Your task to perform on an android device: Clear the shopping cart on newegg.com. Add usb-b to the cart on newegg.com, then select checkout. Image 0: 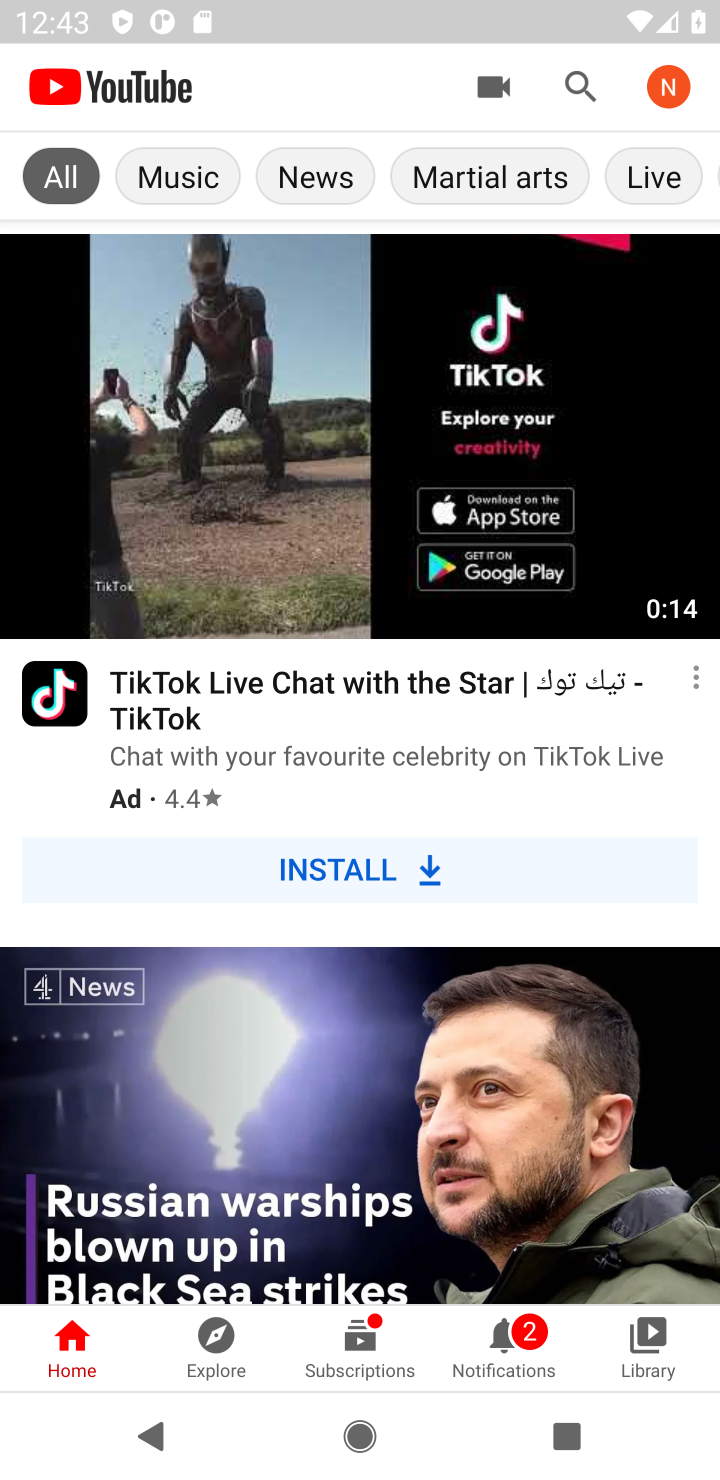
Step 0: press home button
Your task to perform on an android device: Clear the shopping cart on newegg.com. Add usb-b to the cart on newegg.com, then select checkout. Image 1: 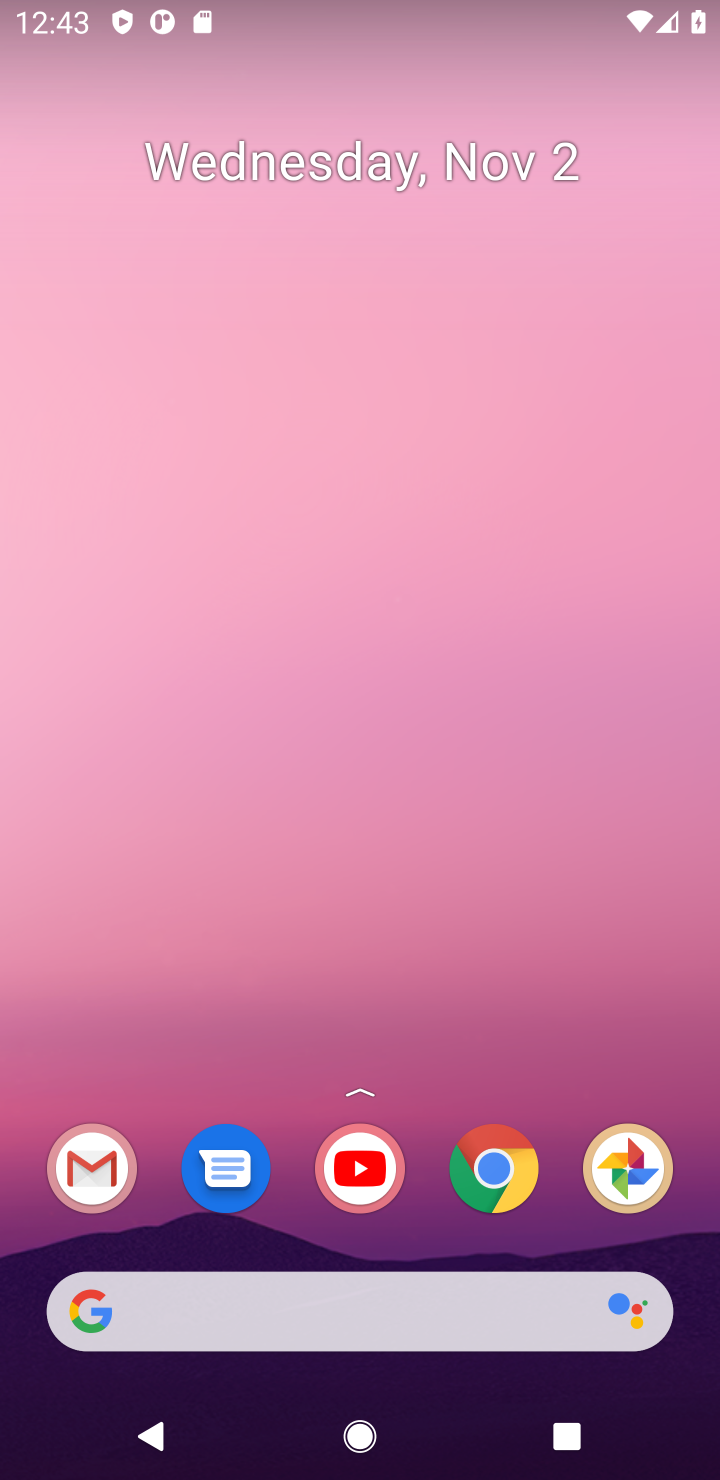
Step 1: click (408, 1311)
Your task to perform on an android device: Clear the shopping cart on newegg.com. Add usb-b to the cart on newegg.com, then select checkout. Image 2: 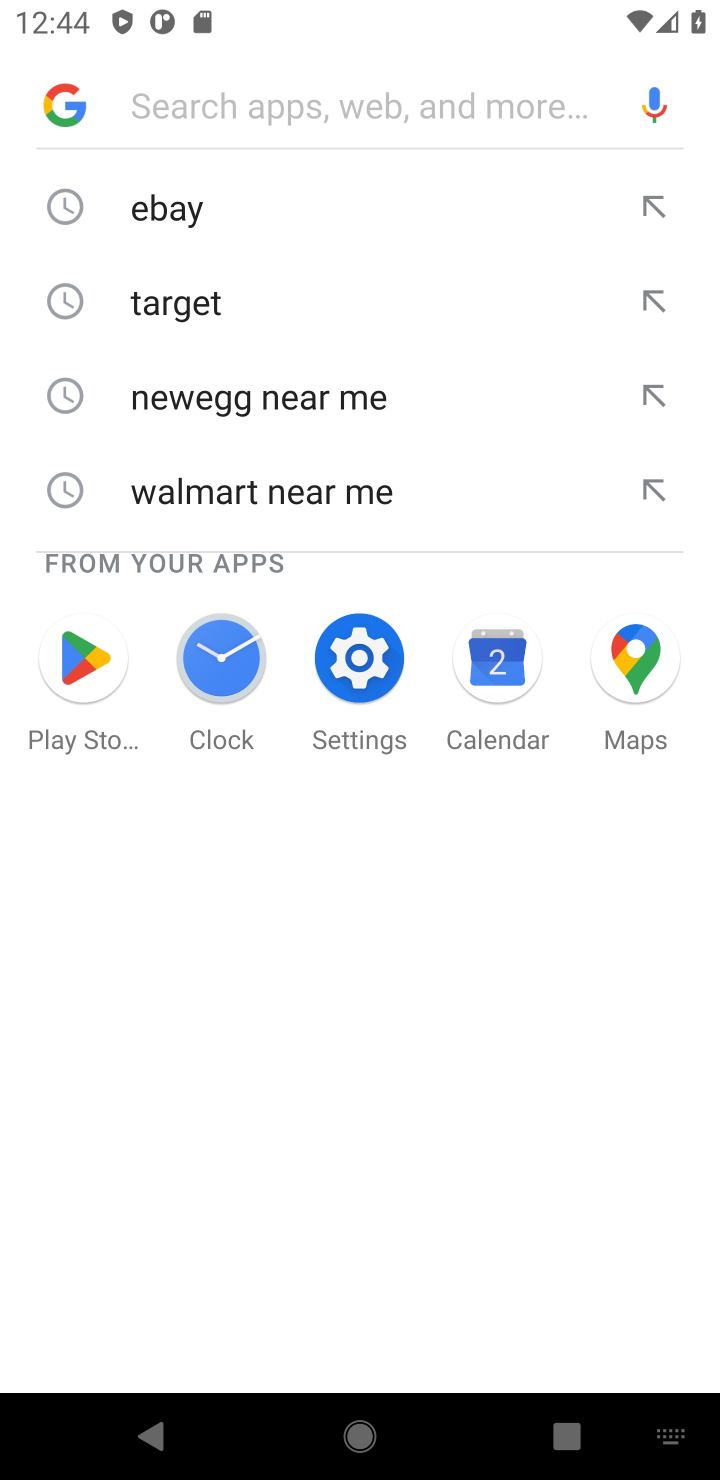
Step 2: type "newegg.com"
Your task to perform on an android device: Clear the shopping cart on newegg.com. Add usb-b to the cart on newegg.com, then select checkout. Image 3: 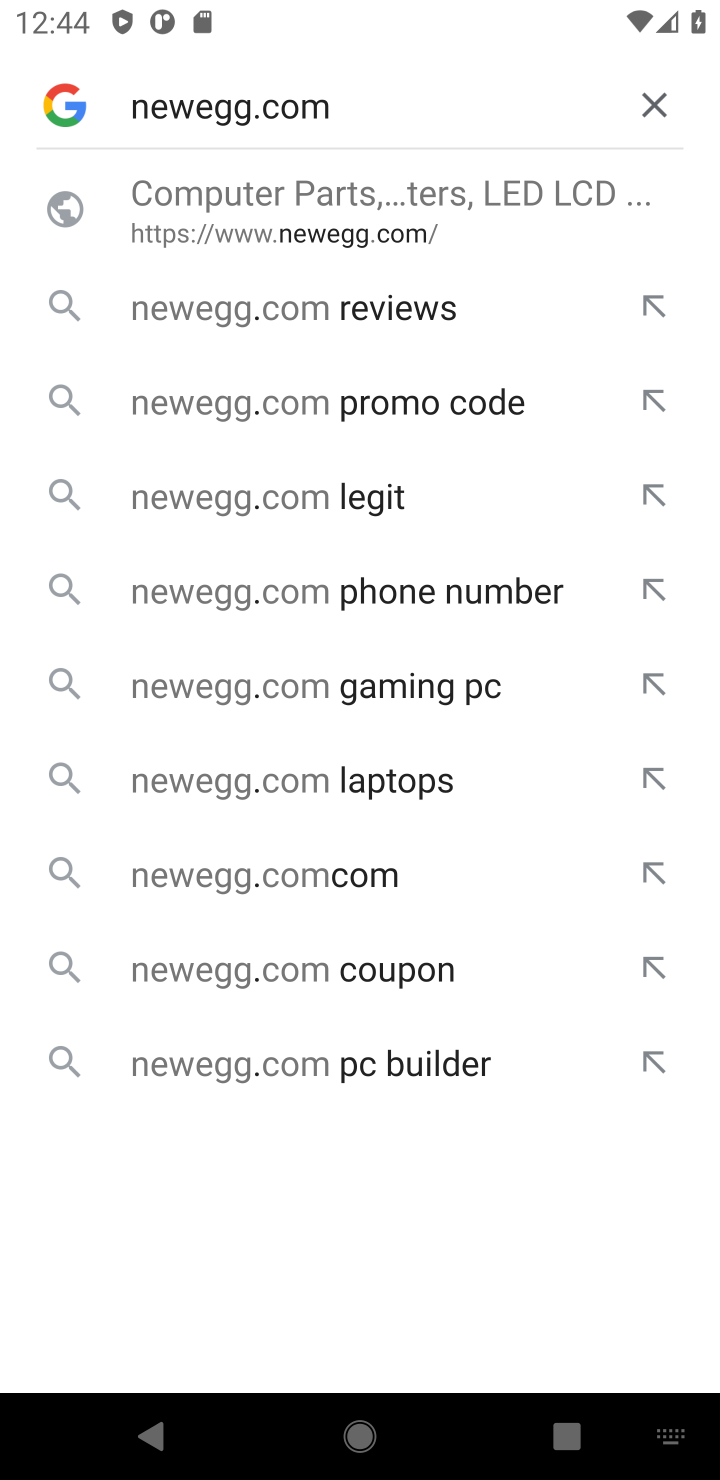
Step 3: click (292, 205)
Your task to perform on an android device: Clear the shopping cart on newegg.com. Add usb-b to the cart on newegg.com, then select checkout. Image 4: 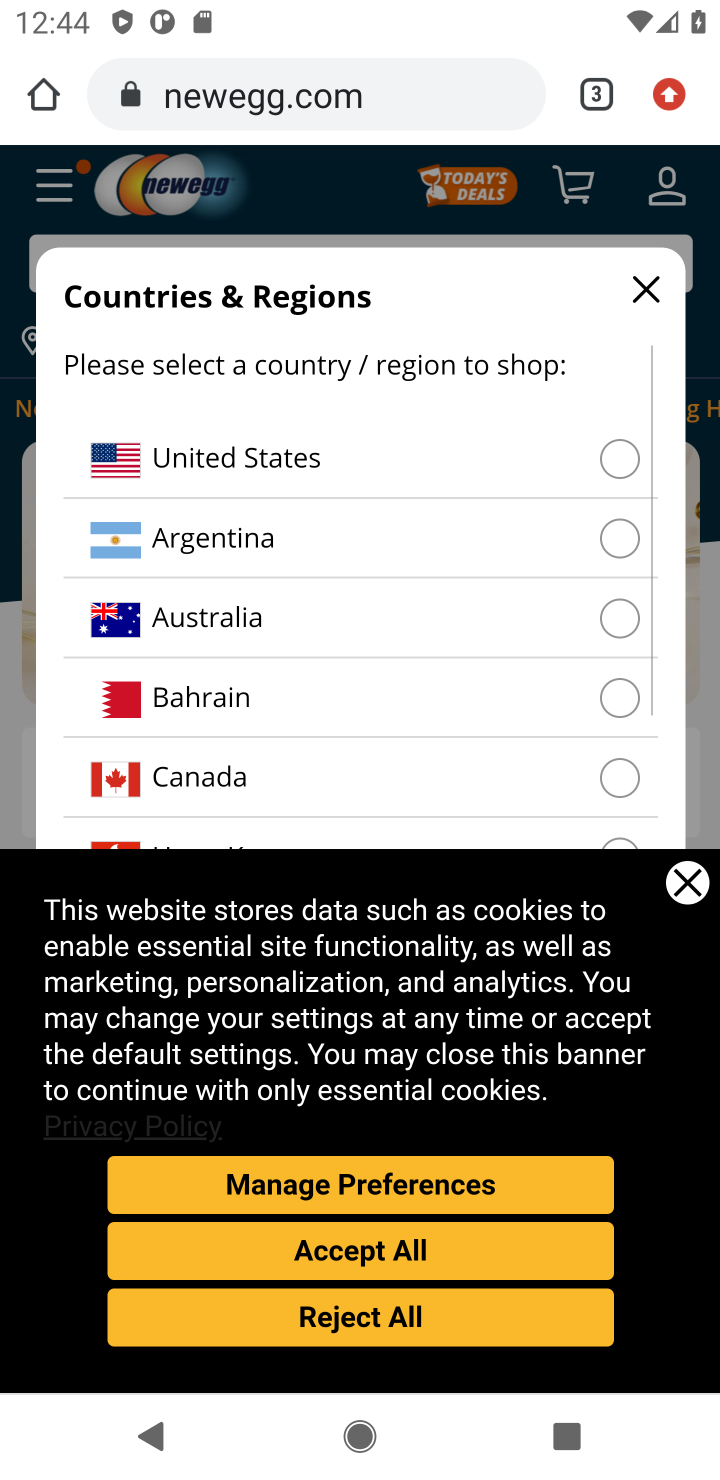
Step 4: click (682, 890)
Your task to perform on an android device: Clear the shopping cart on newegg.com. Add usb-b to the cart on newegg.com, then select checkout. Image 5: 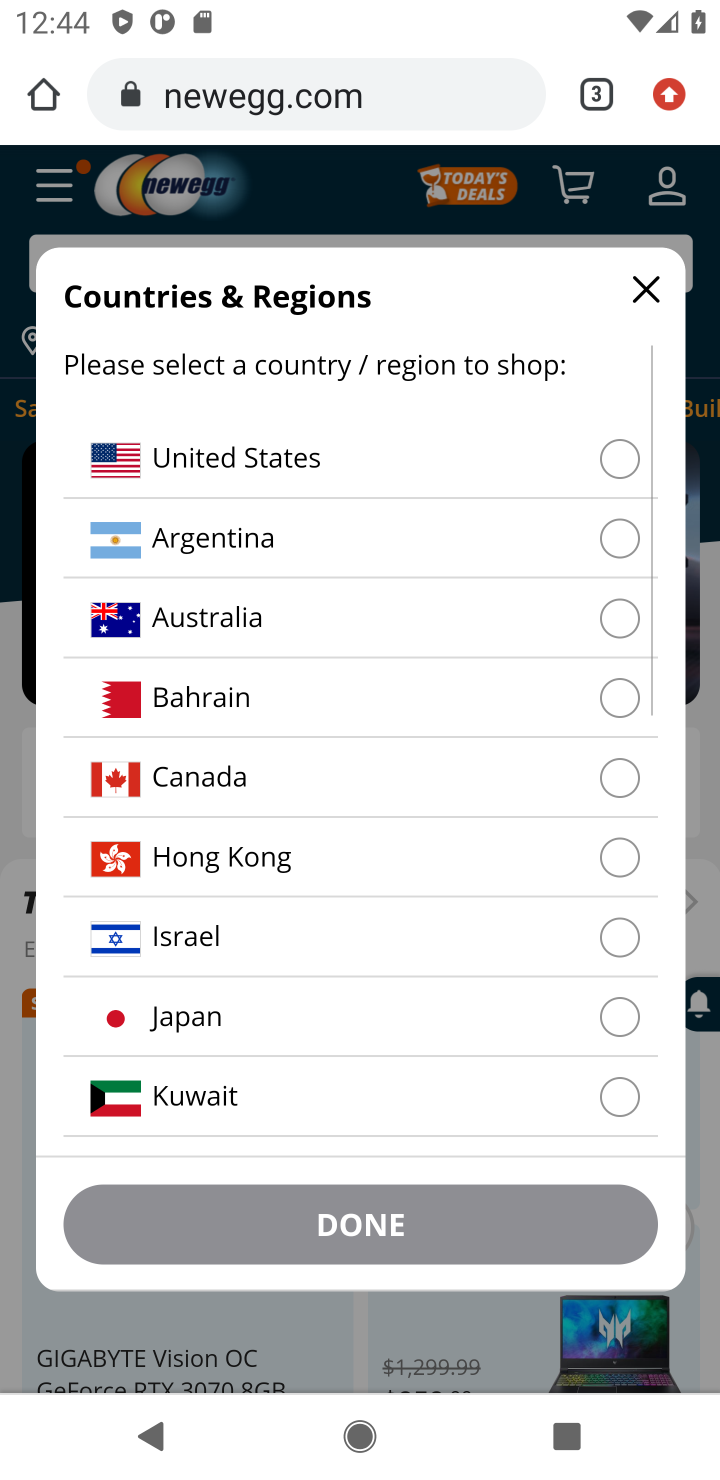
Step 5: click (625, 462)
Your task to perform on an android device: Clear the shopping cart on newegg.com. Add usb-b to the cart on newegg.com, then select checkout. Image 6: 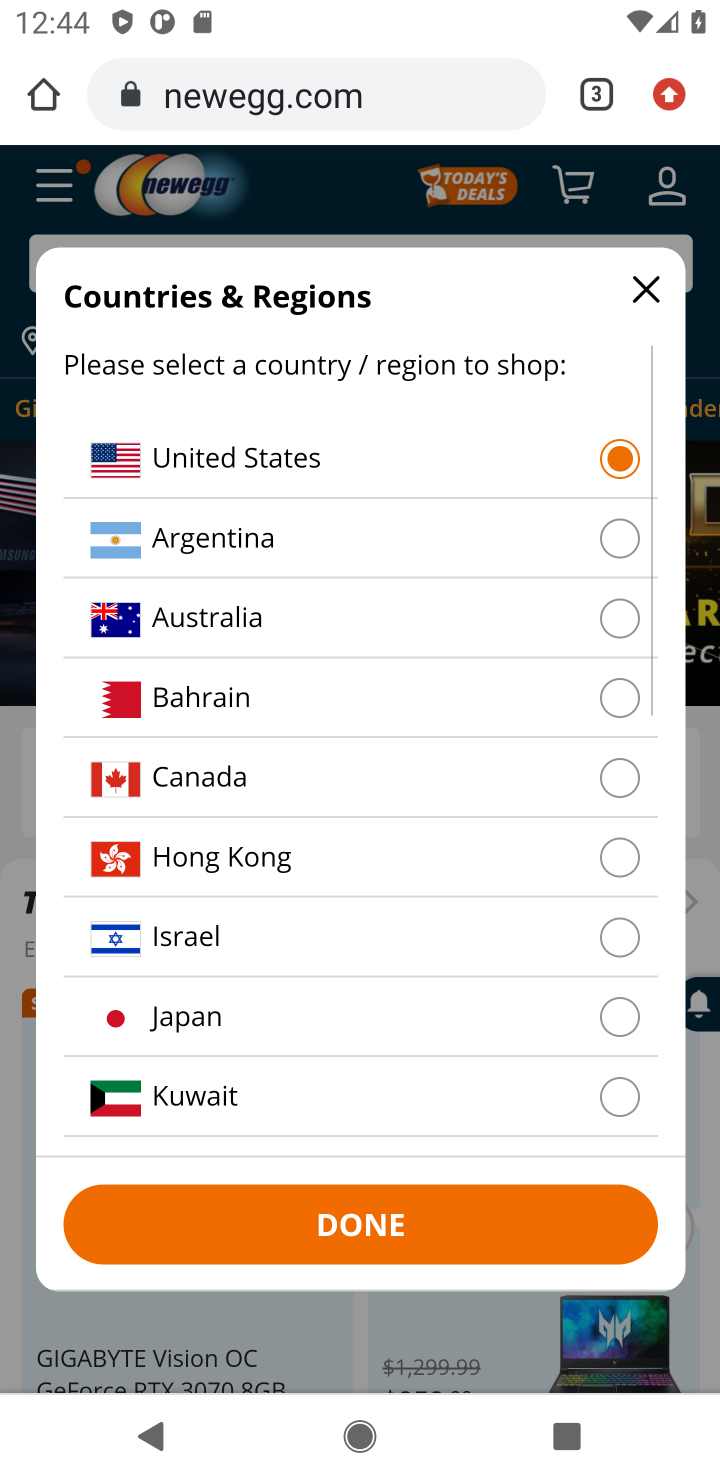
Step 6: click (361, 1223)
Your task to perform on an android device: Clear the shopping cart on newegg.com. Add usb-b to the cart on newegg.com, then select checkout. Image 7: 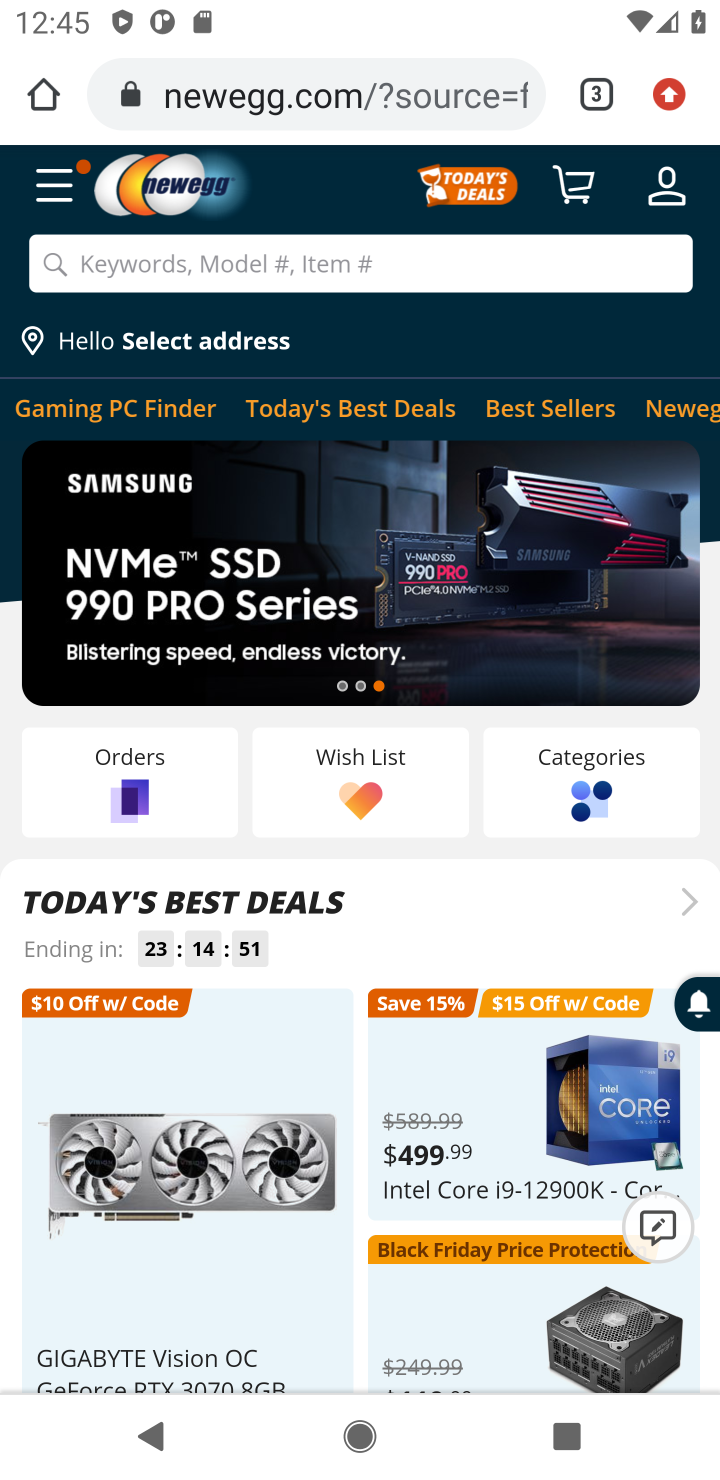
Step 7: click (256, 253)
Your task to perform on an android device: Clear the shopping cart on newegg.com. Add usb-b to the cart on newegg.com, then select checkout. Image 8: 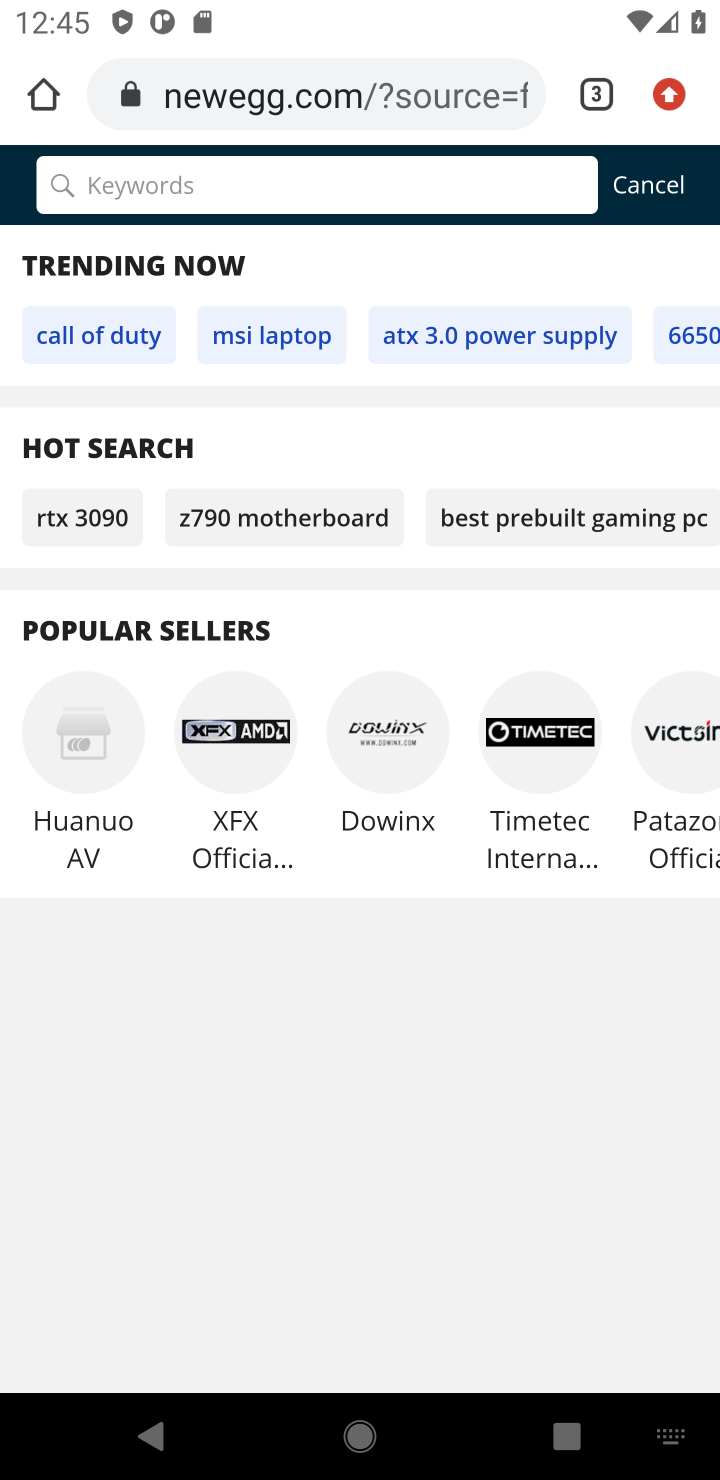
Step 8: type "usb-b"
Your task to perform on an android device: Clear the shopping cart on newegg.com. Add usb-b to the cart on newegg.com, then select checkout. Image 9: 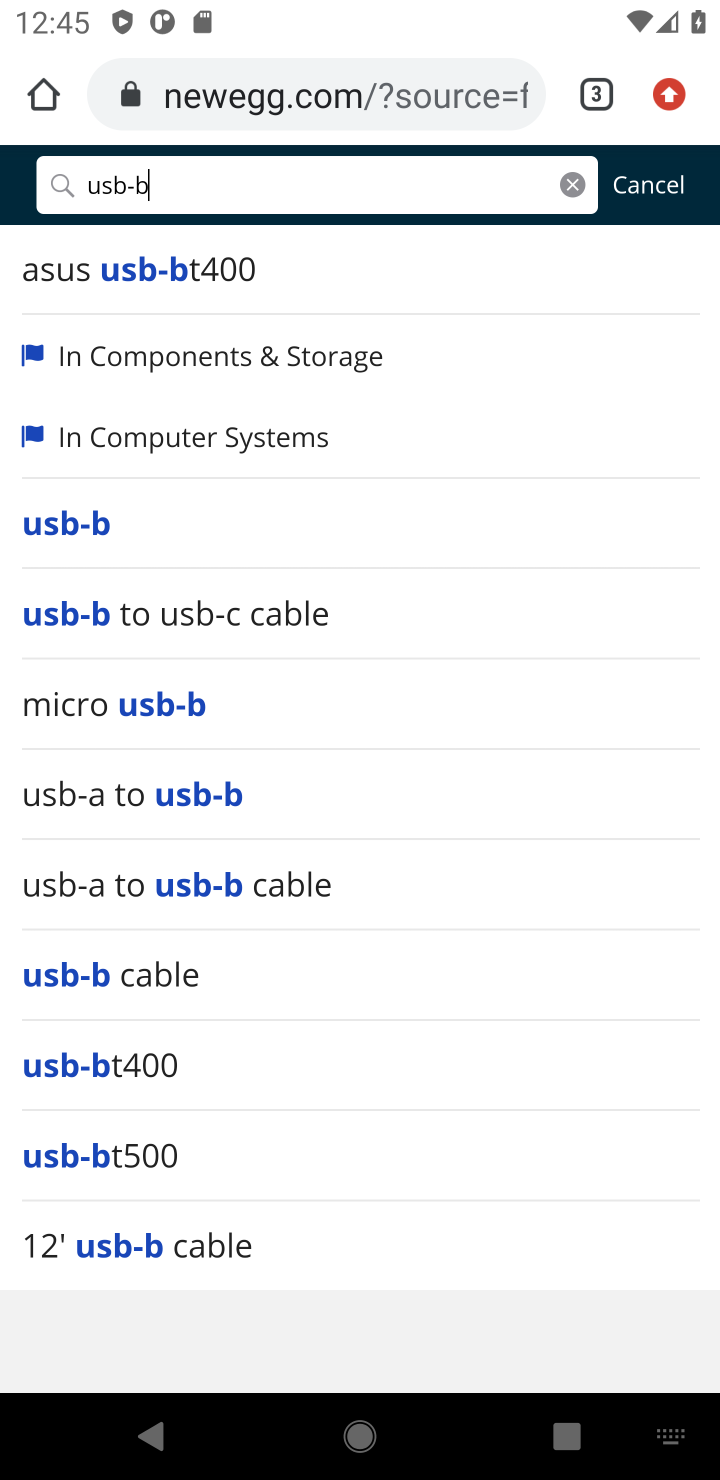
Step 9: click (68, 510)
Your task to perform on an android device: Clear the shopping cart on newegg.com. Add usb-b to the cart on newegg.com, then select checkout. Image 10: 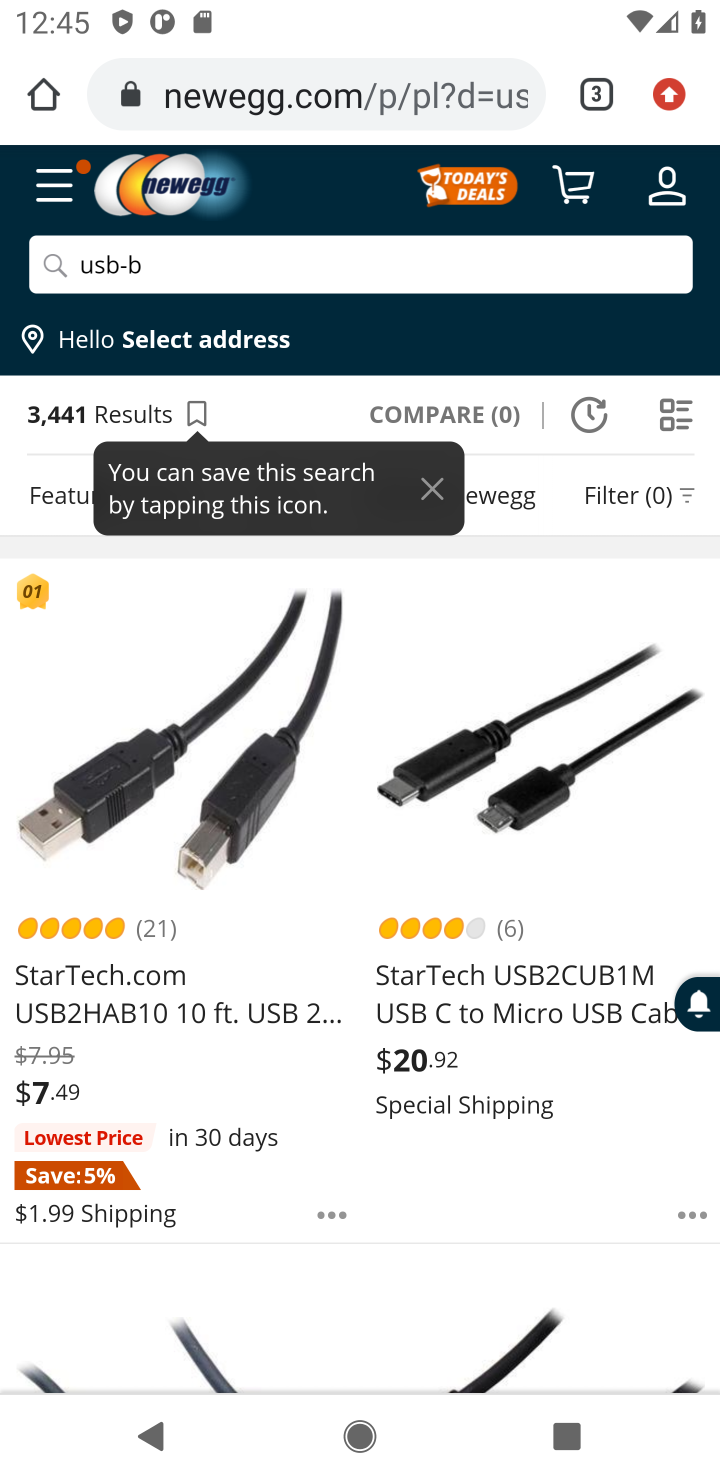
Step 10: click (94, 840)
Your task to perform on an android device: Clear the shopping cart on newegg.com. Add usb-b to the cart on newegg.com, then select checkout. Image 11: 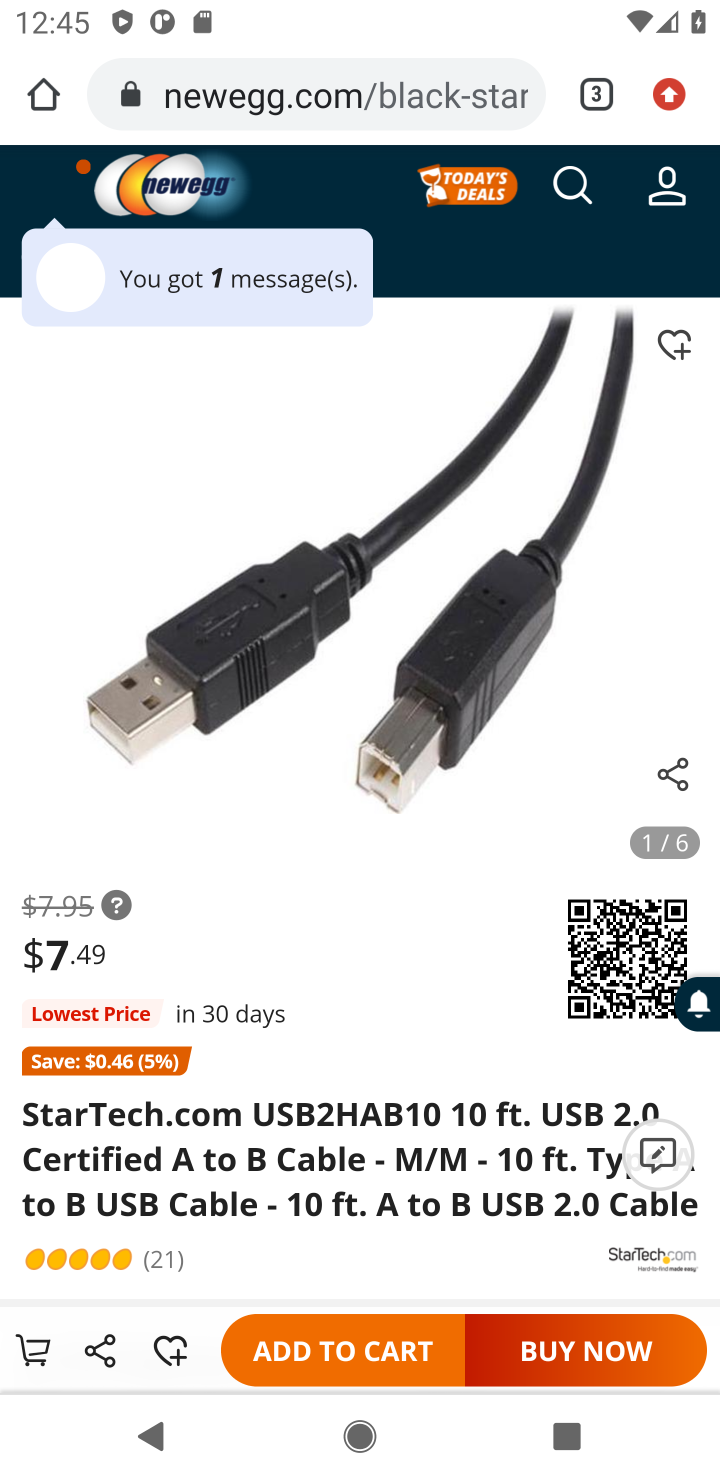
Step 11: click (318, 1348)
Your task to perform on an android device: Clear the shopping cart on newegg.com. Add usb-b to the cart on newegg.com, then select checkout. Image 12: 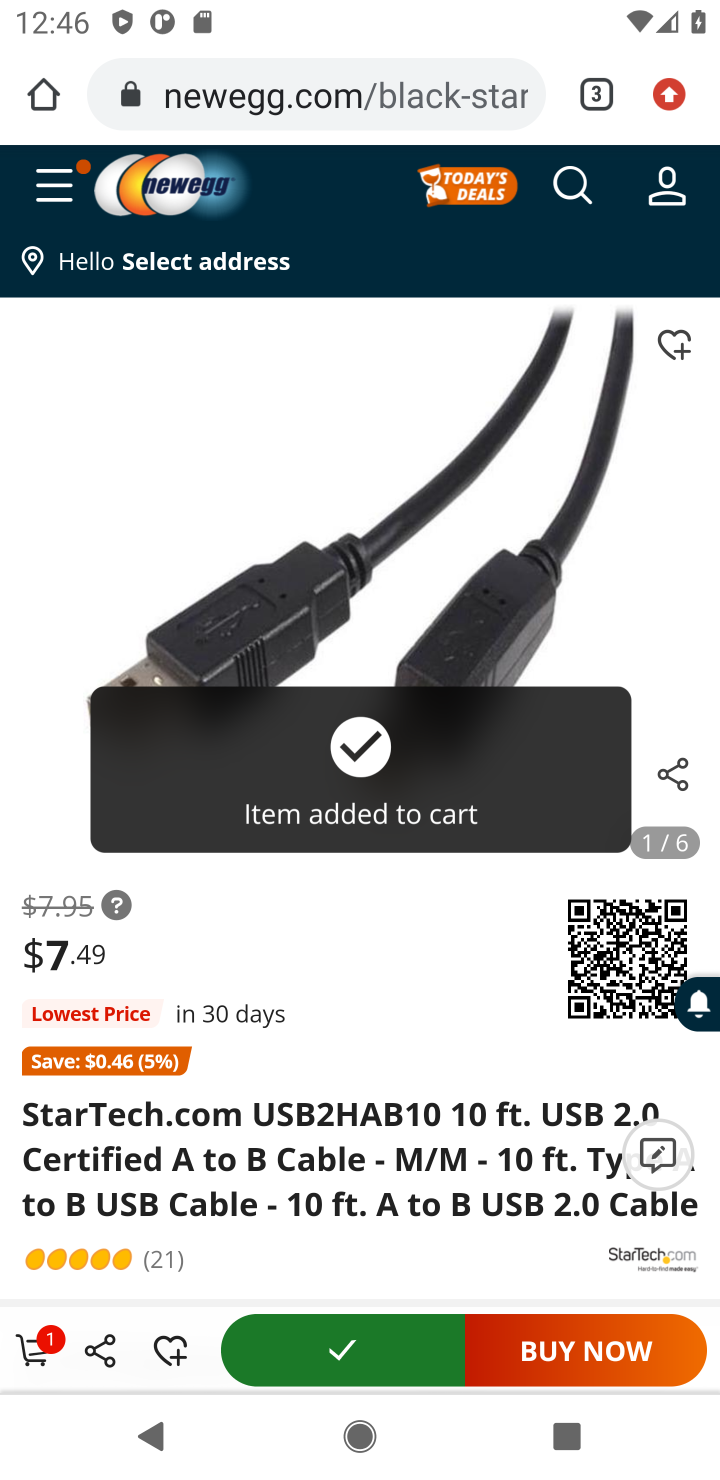
Step 12: click (43, 1357)
Your task to perform on an android device: Clear the shopping cart on newegg.com. Add usb-b to the cart on newegg.com, then select checkout. Image 13: 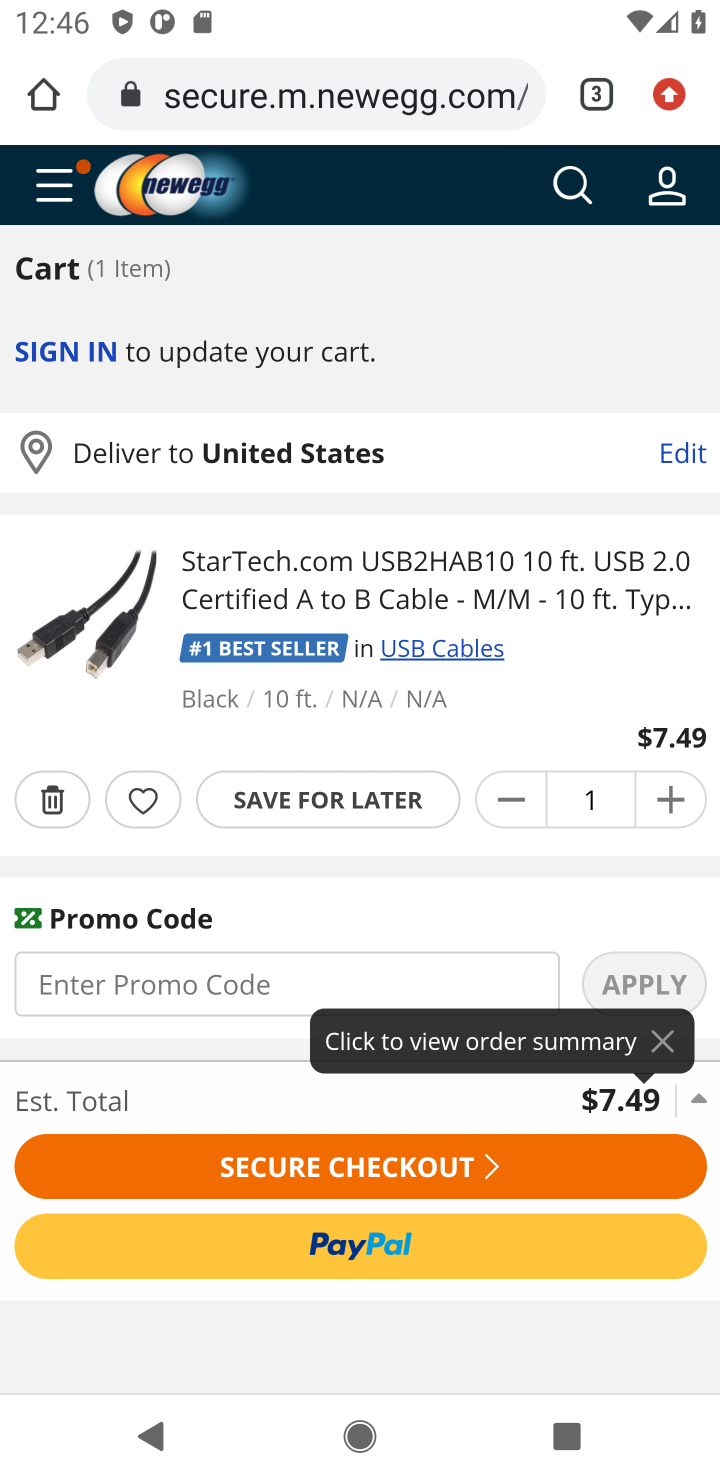
Step 13: click (392, 1146)
Your task to perform on an android device: Clear the shopping cart on newegg.com. Add usb-b to the cart on newegg.com, then select checkout. Image 14: 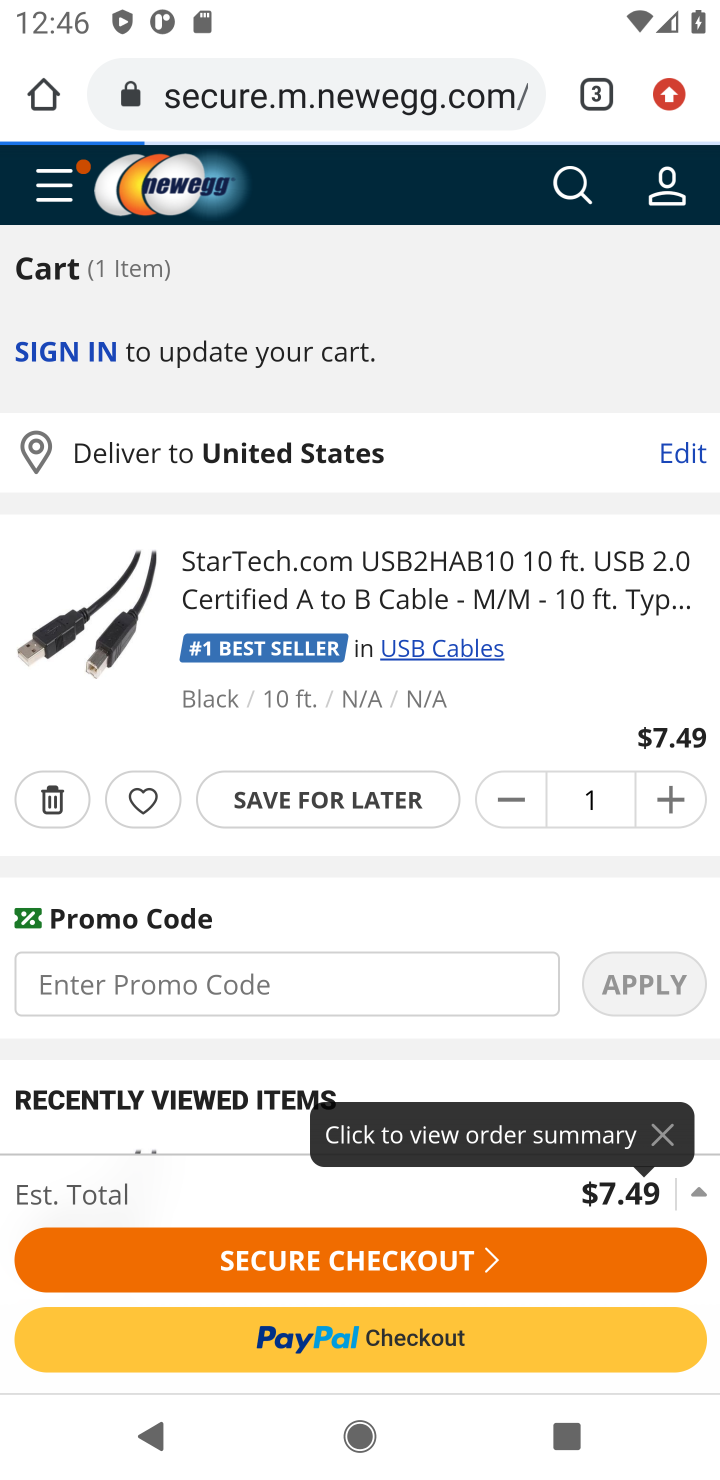
Step 14: task complete